Your task to perform on an android device: Check the weather Image 0: 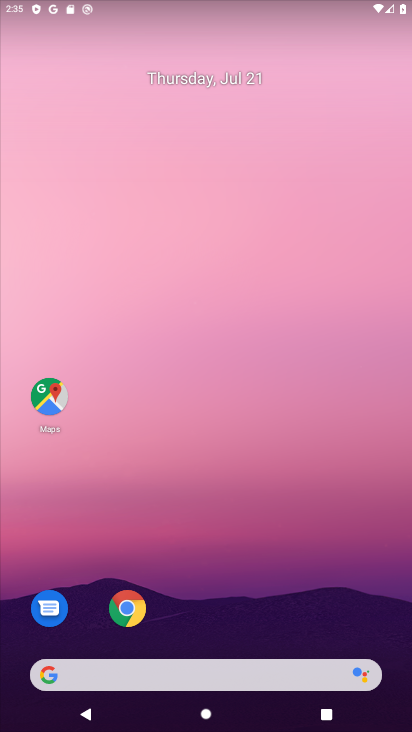
Step 0: click (217, 674)
Your task to perform on an android device: Check the weather Image 1: 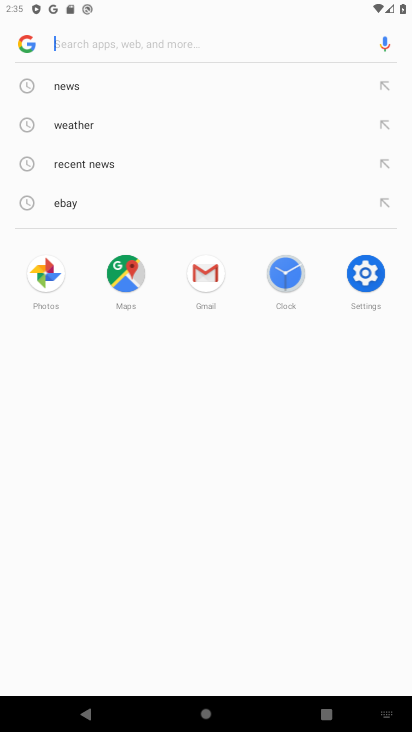
Step 1: click (92, 132)
Your task to perform on an android device: Check the weather Image 2: 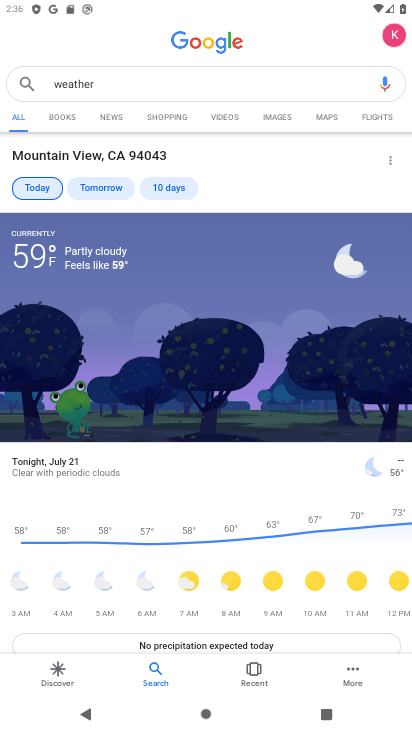
Step 2: task complete